Your task to perform on an android device: Turn off the flashlight Image 0: 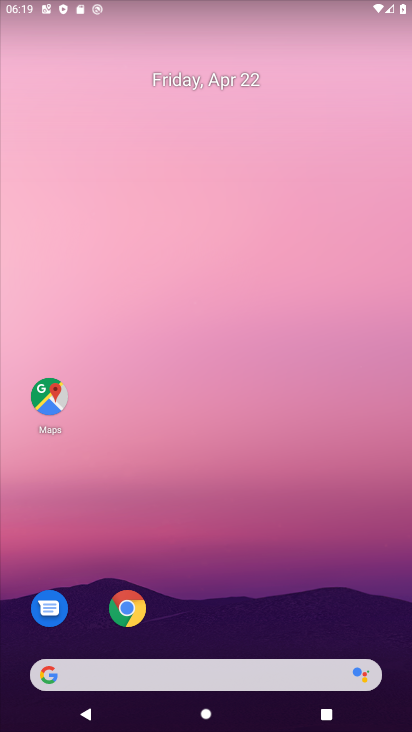
Step 0: drag from (247, 633) to (218, 197)
Your task to perform on an android device: Turn off the flashlight Image 1: 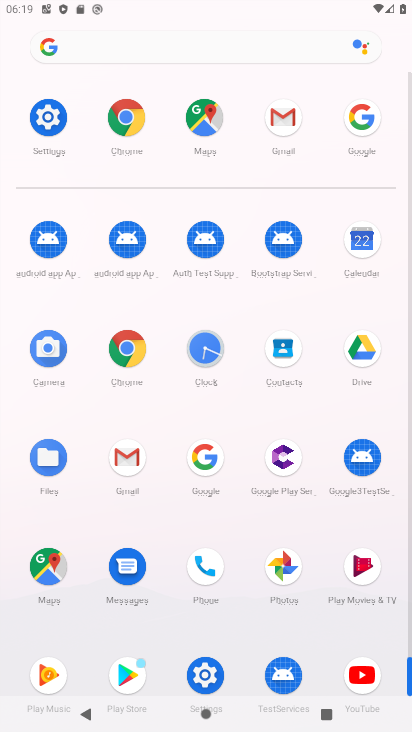
Step 1: click (208, 670)
Your task to perform on an android device: Turn off the flashlight Image 2: 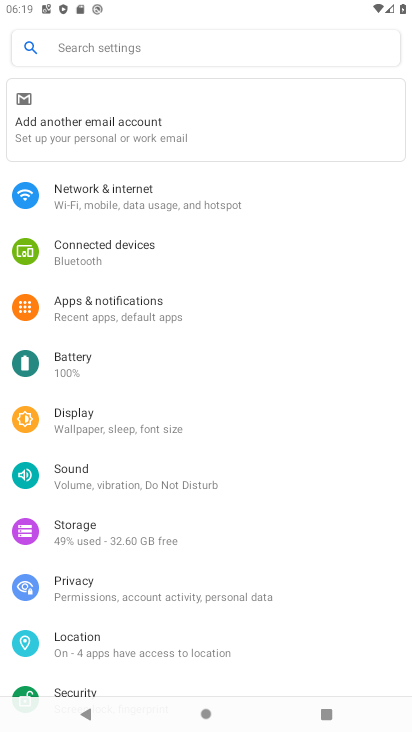
Step 2: task complete